Your task to perform on an android device: turn on notifications settings in the gmail app Image 0: 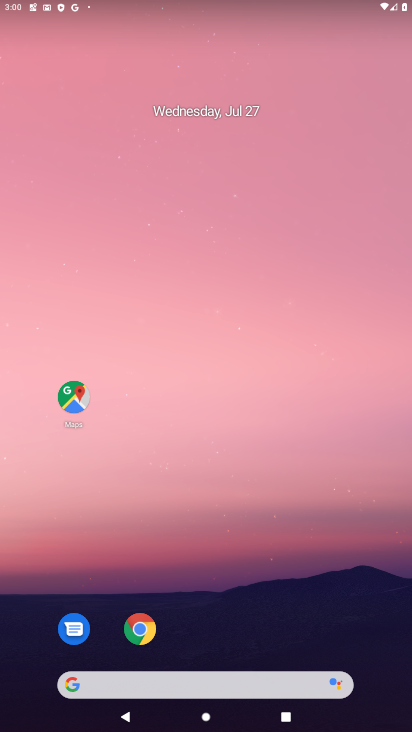
Step 0: drag from (282, 658) to (284, 120)
Your task to perform on an android device: turn on notifications settings in the gmail app Image 1: 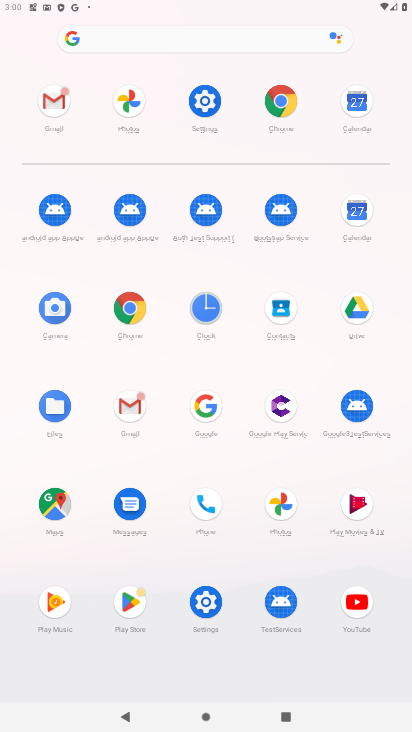
Step 1: click (71, 117)
Your task to perform on an android device: turn on notifications settings in the gmail app Image 2: 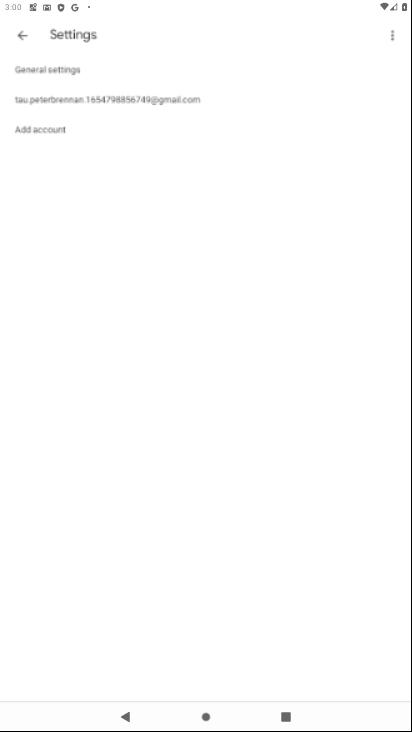
Step 2: click (71, 117)
Your task to perform on an android device: turn on notifications settings in the gmail app Image 3: 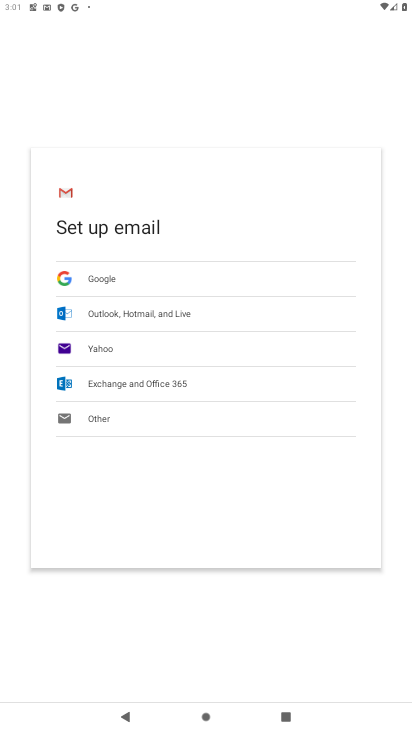
Step 3: task complete